Your task to perform on an android device: empty trash in the gmail app Image 0: 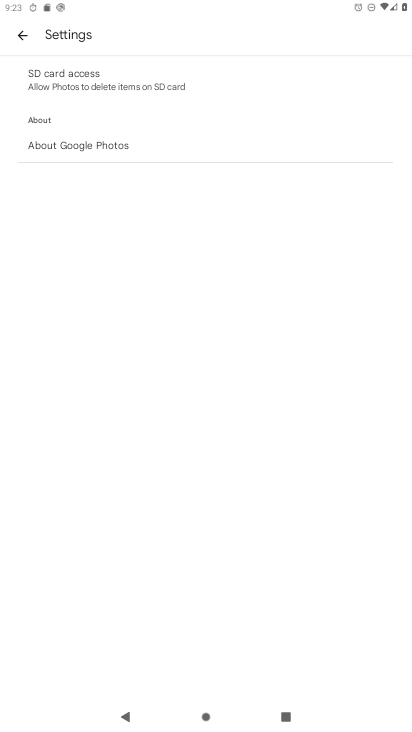
Step 0: press home button
Your task to perform on an android device: empty trash in the gmail app Image 1: 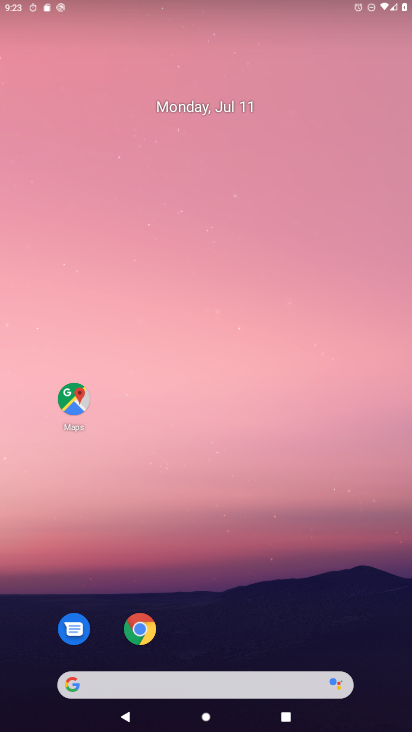
Step 1: drag from (218, 650) to (241, 114)
Your task to perform on an android device: empty trash in the gmail app Image 2: 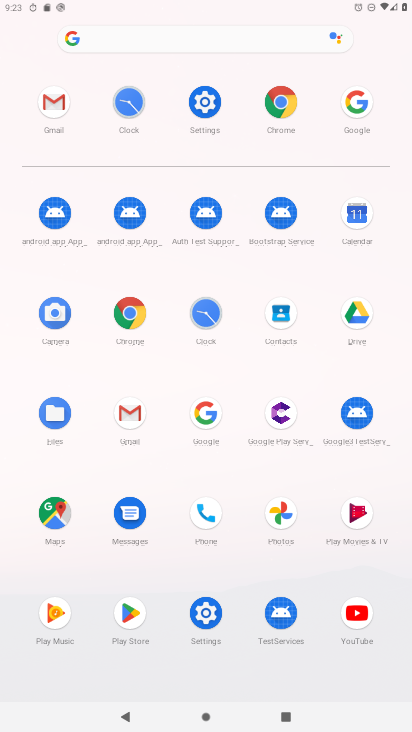
Step 2: click (52, 99)
Your task to perform on an android device: empty trash in the gmail app Image 3: 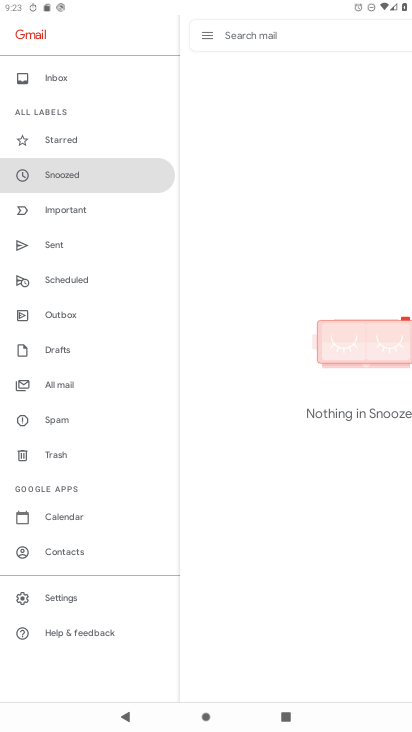
Step 3: click (64, 453)
Your task to perform on an android device: empty trash in the gmail app Image 4: 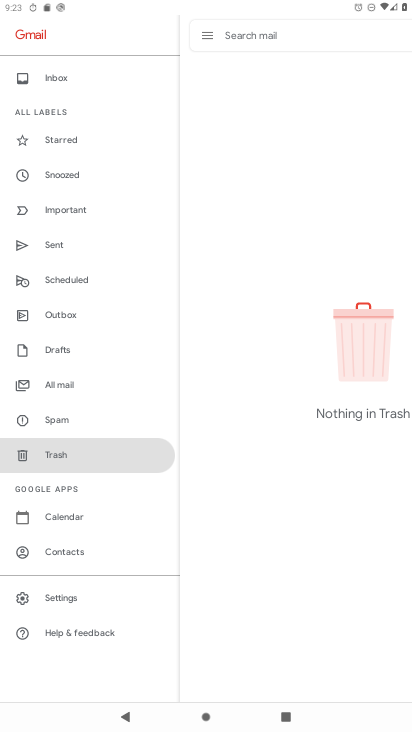
Step 4: task complete